Your task to perform on an android device: turn off location history Image 0: 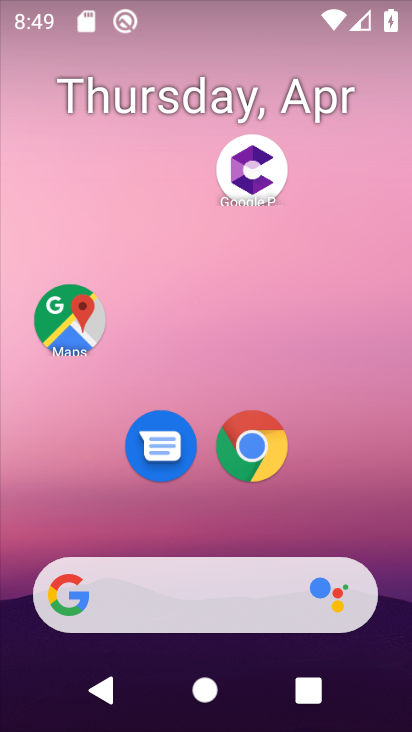
Step 0: drag from (199, 490) to (213, 28)
Your task to perform on an android device: turn off location history Image 1: 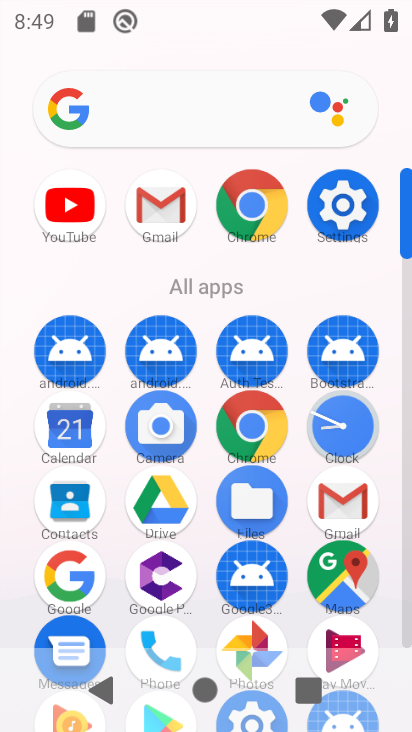
Step 1: click (345, 198)
Your task to perform on an android device: turn off location history Image 2: 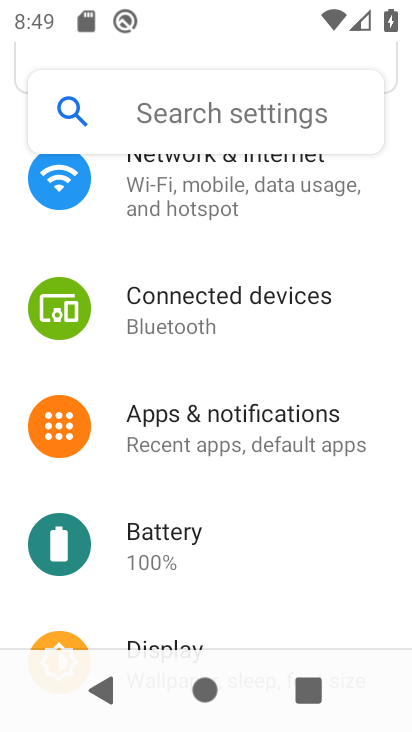
Step 2: drag from (226, 567) to (266, 160)
Your task to perform on an android device: turn off location history Image 3: 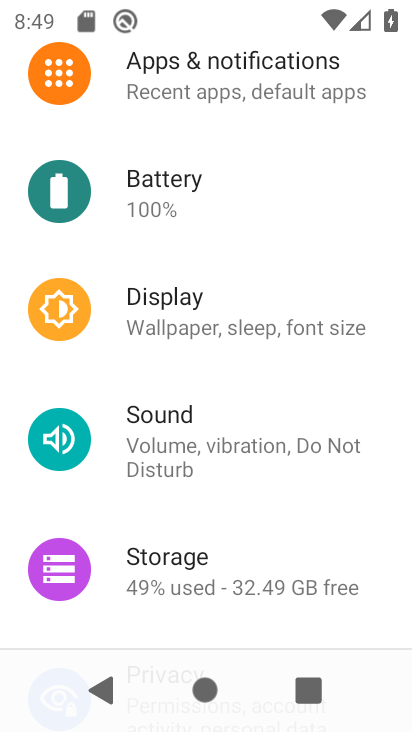
Step 3: drag from (196, 568) to (205, 249)
Your task to perform on an android device: turn off location history Image 4: 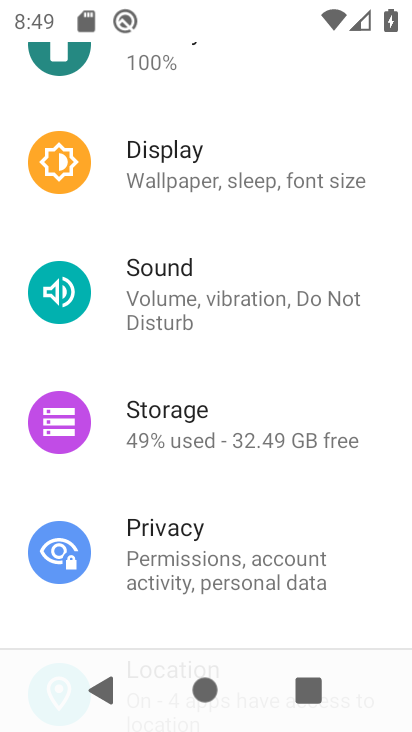
Step 4: drag from (203, 532) to (240, 151)
Your task to perform on an android device: turn off location history Image 5: 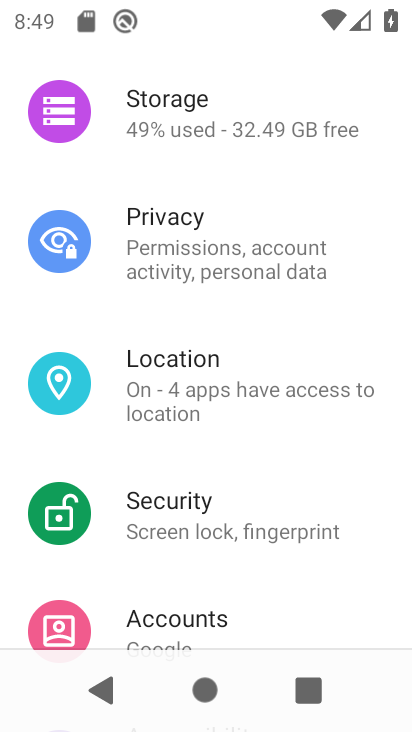
Step 5: click (217, 377)
Your task to perform on an android device: turn off location history Image 6: 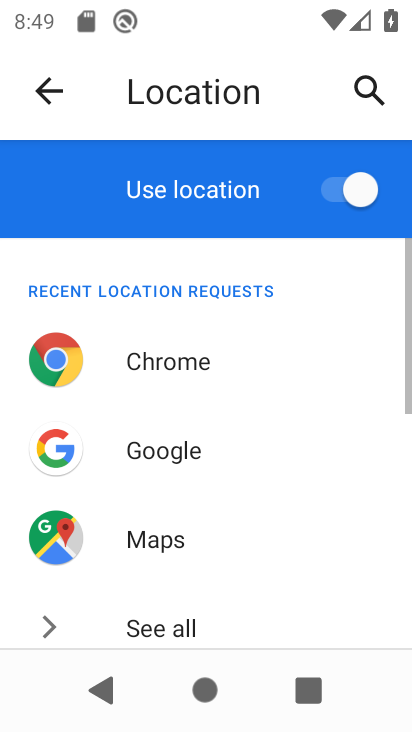
Step 6: drag from (221, 528) to (261, 37)
Your task to perform on an android device: turn off location history Image 7: 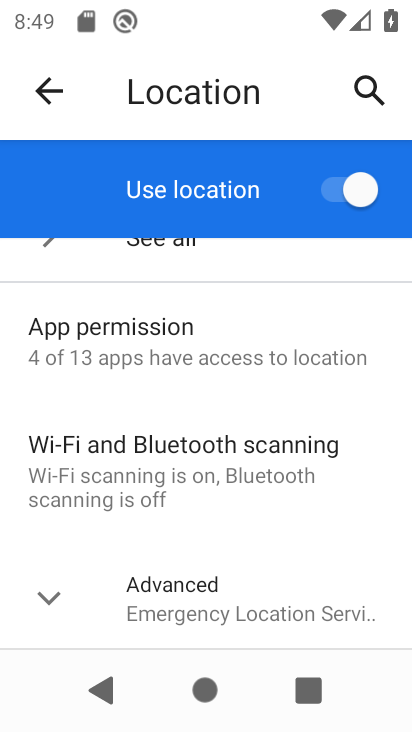
Step 7: click (242, 589)
Your task to perform on an android device: turn off location history Image 8: 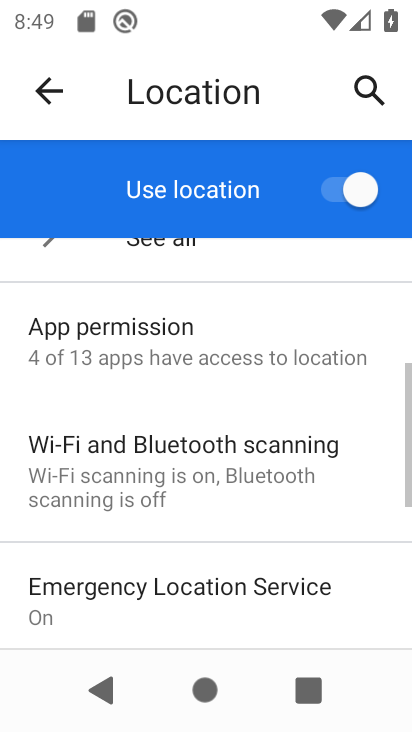
Step 8: drag from (242, 448) to (246, 141)
Your task to perform on an android device: turn off location history Image 9: 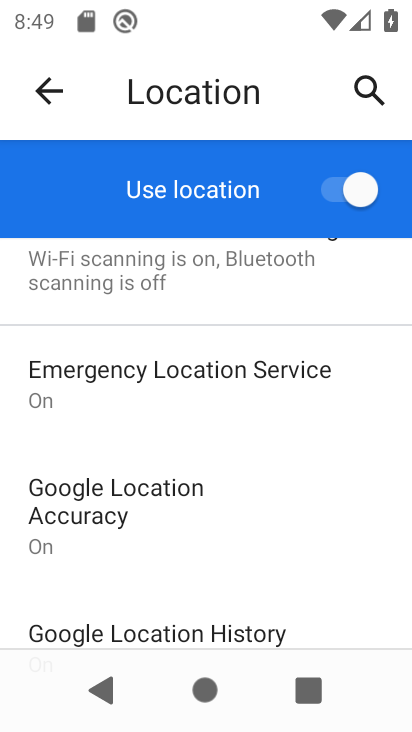
Step 9: click (250, 624)
Your task to perform on an android device: turn off location history Image 10: 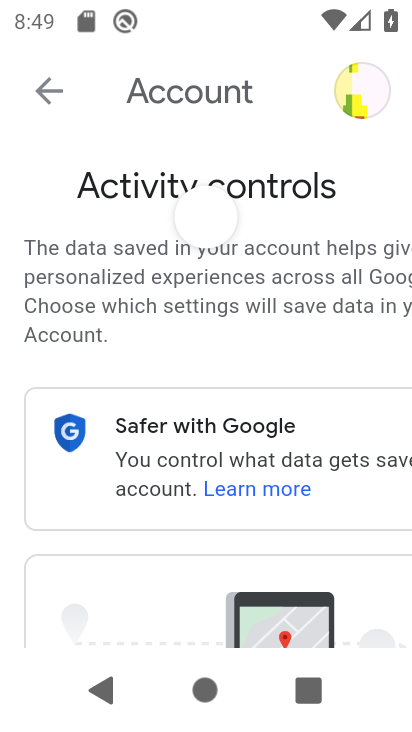
Step 10: drag from (216, 452) to (257, 119)
Your task to perform on an android device: turn off location history Image 11: 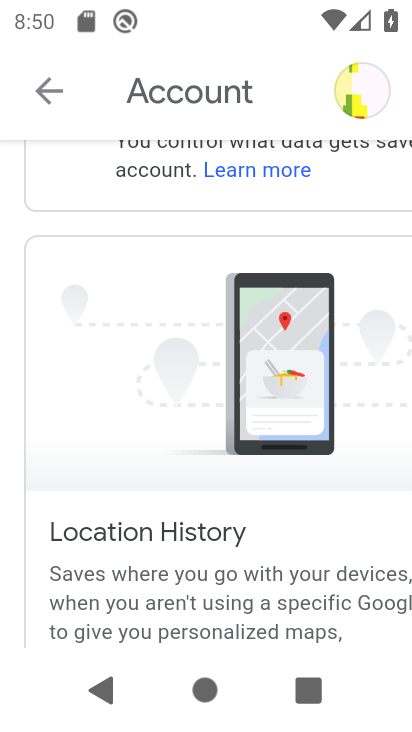
Step 11: drag from (235, 580) to (291, 98)
Your task to perform on an android device: turn off location history Image 12: 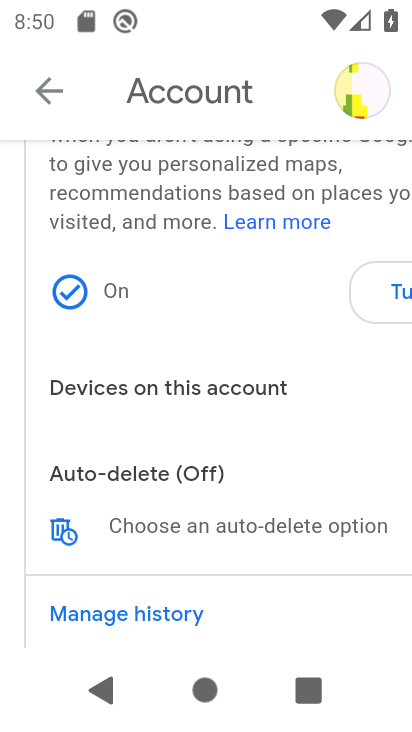
Step 12: drag from (302, 341) to (101, 316)
Your task to perform on an android device: turn off location history Image 13: 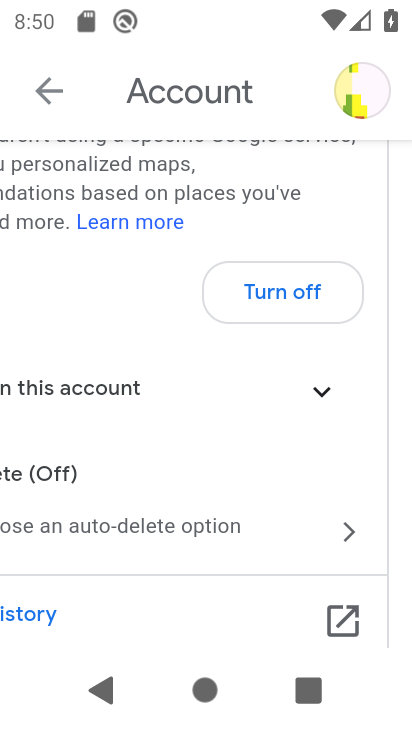
Step 13: click (260, 306)
Your task to perform on an android device: turn off location history Image 14: 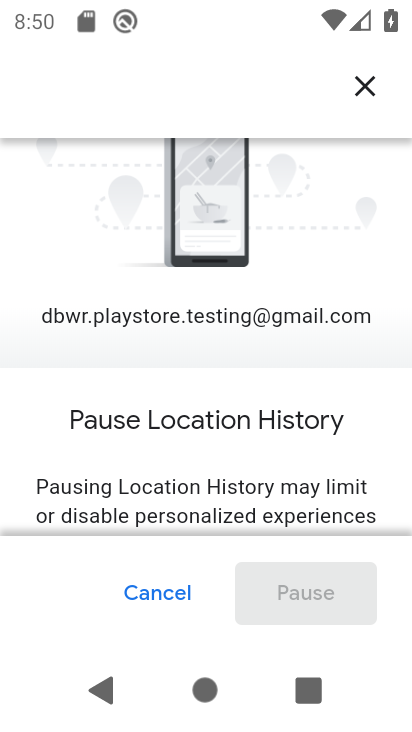
Step 14: drag from (274, 437) to (242, 55)
Your task to perform on an android device: turn off location history Image 15: 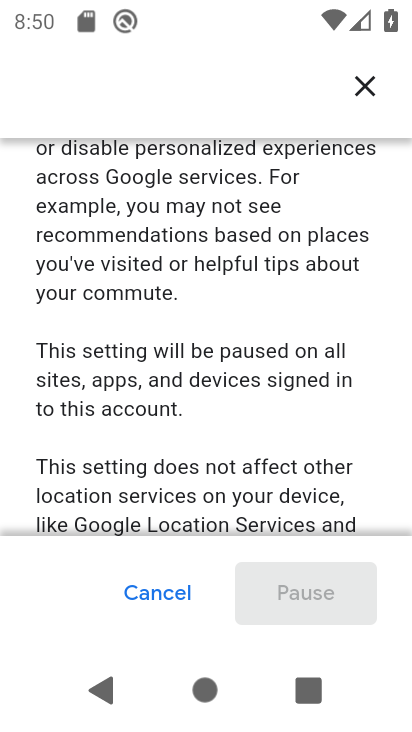
Step 15: drag from (214, 427) to (234, 52)
Your task to perform on an android device: turn off location history Image 16: 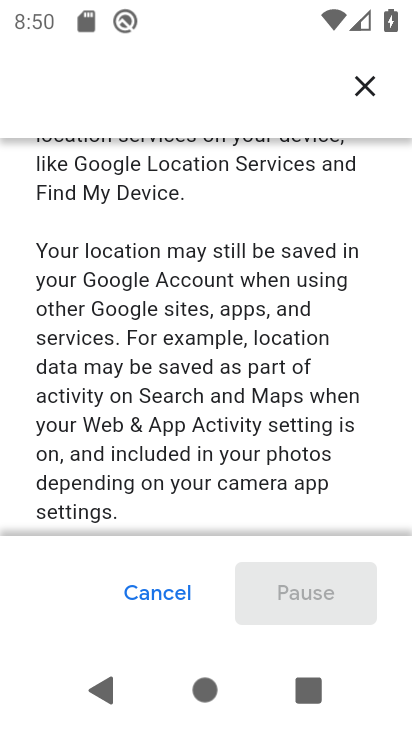
Step 16: drag from (239, 309) to (268, 51)
Your task to perform on an android device: turn off location history Image 17: 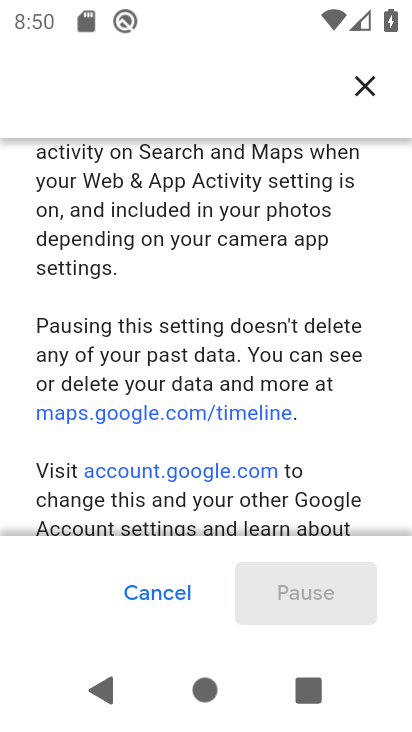
Step 17: drag from (246, 523) to (250, 119)
Your task to perform on an android device: turn off location history Image 18: 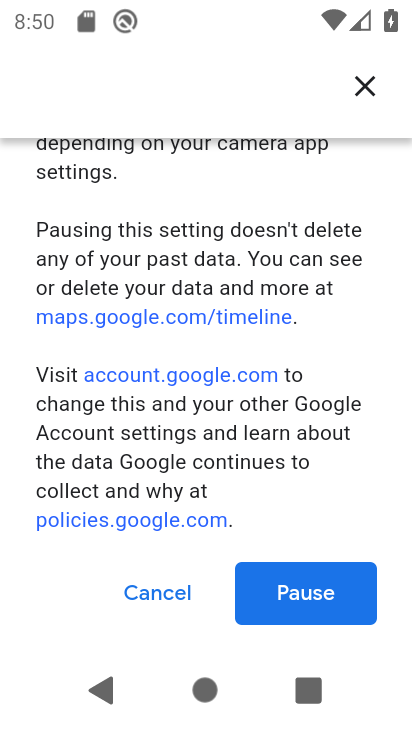
Step 18: click (272, 606)
Your task to perform on an android device: turn off location history Image 19: 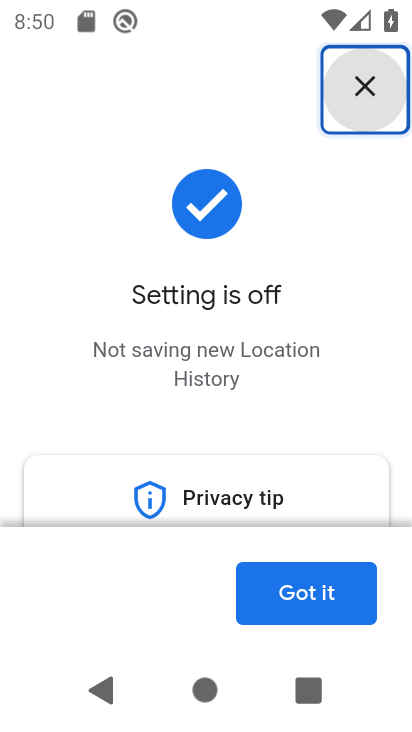
Step 19: task complete